Your task to perform on an android device: Open the calendar and show me this week's events? Image 0: 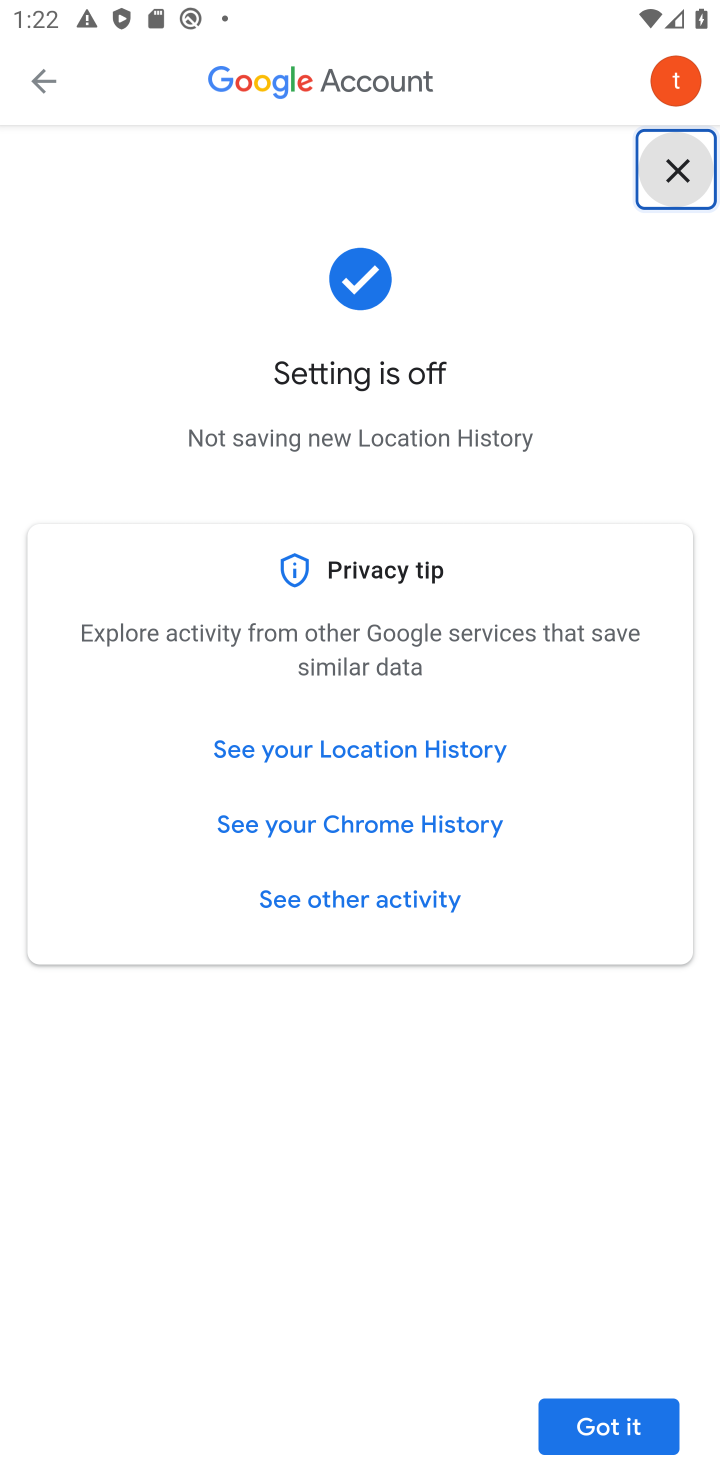
Step 0: press home button
Your task to perform on an android device: Open the calendar and show me this week's events? Image 1: 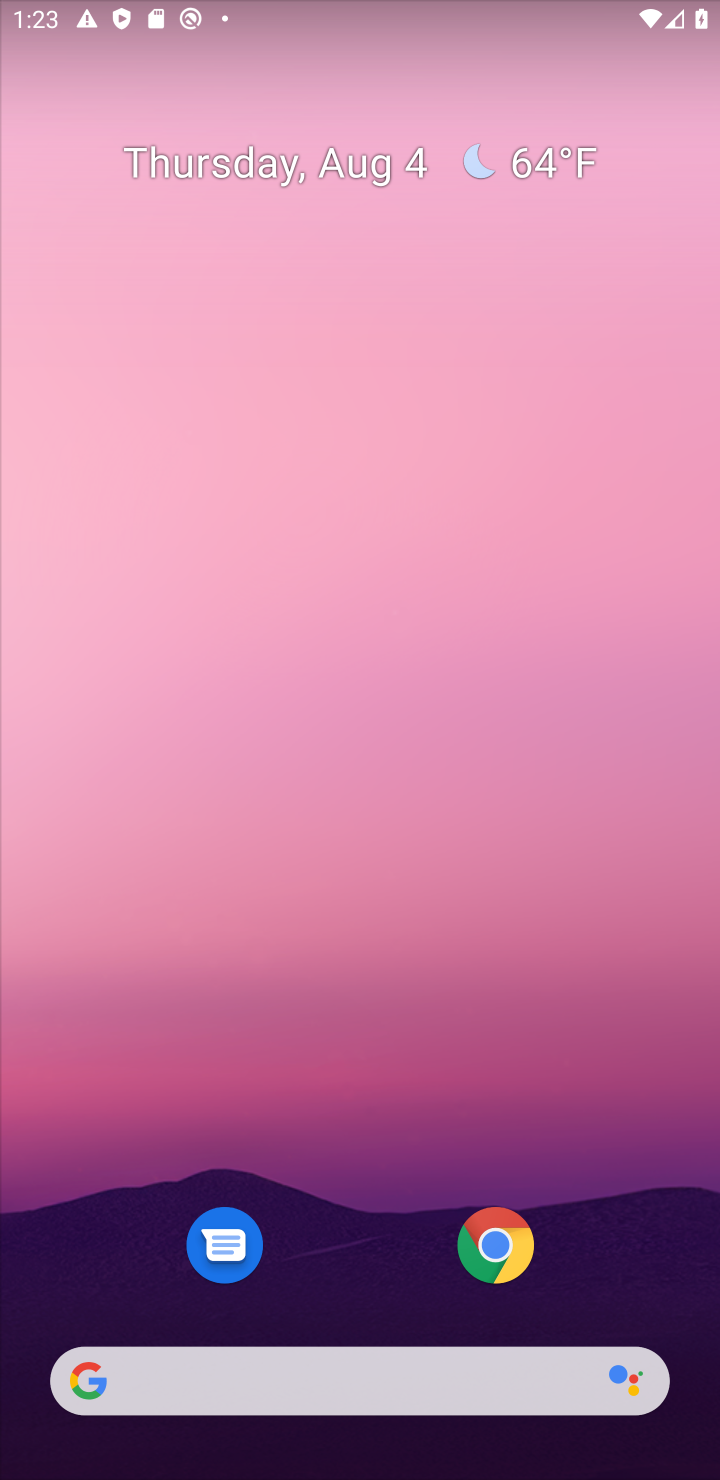
Step 1: drag from (386, 1152) to (450, 138)
Your task to perform on an android device: Open the calendar and show me this week's events? Image 2: 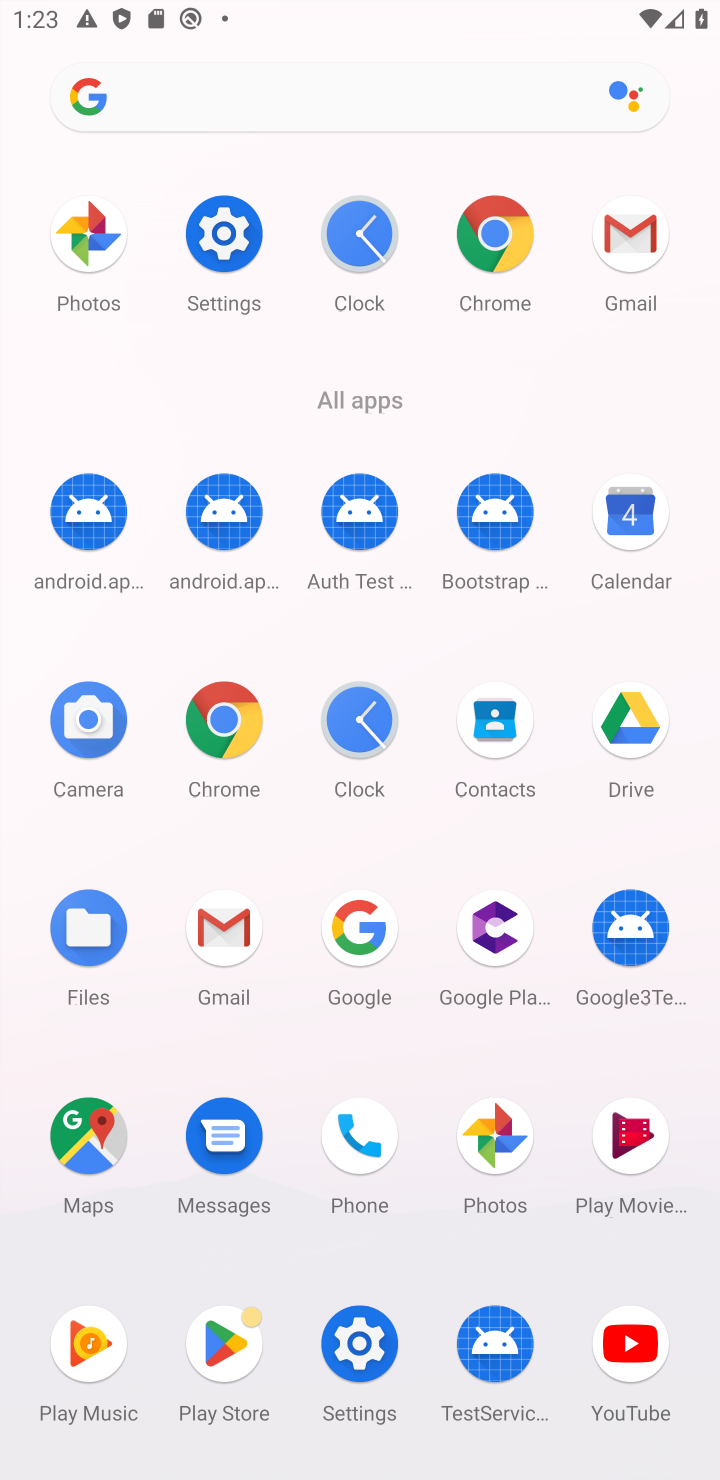
Step 2: click (650, 522)
Your task to perform on an android device: Open the calendar and show me this week's events? Image 3: 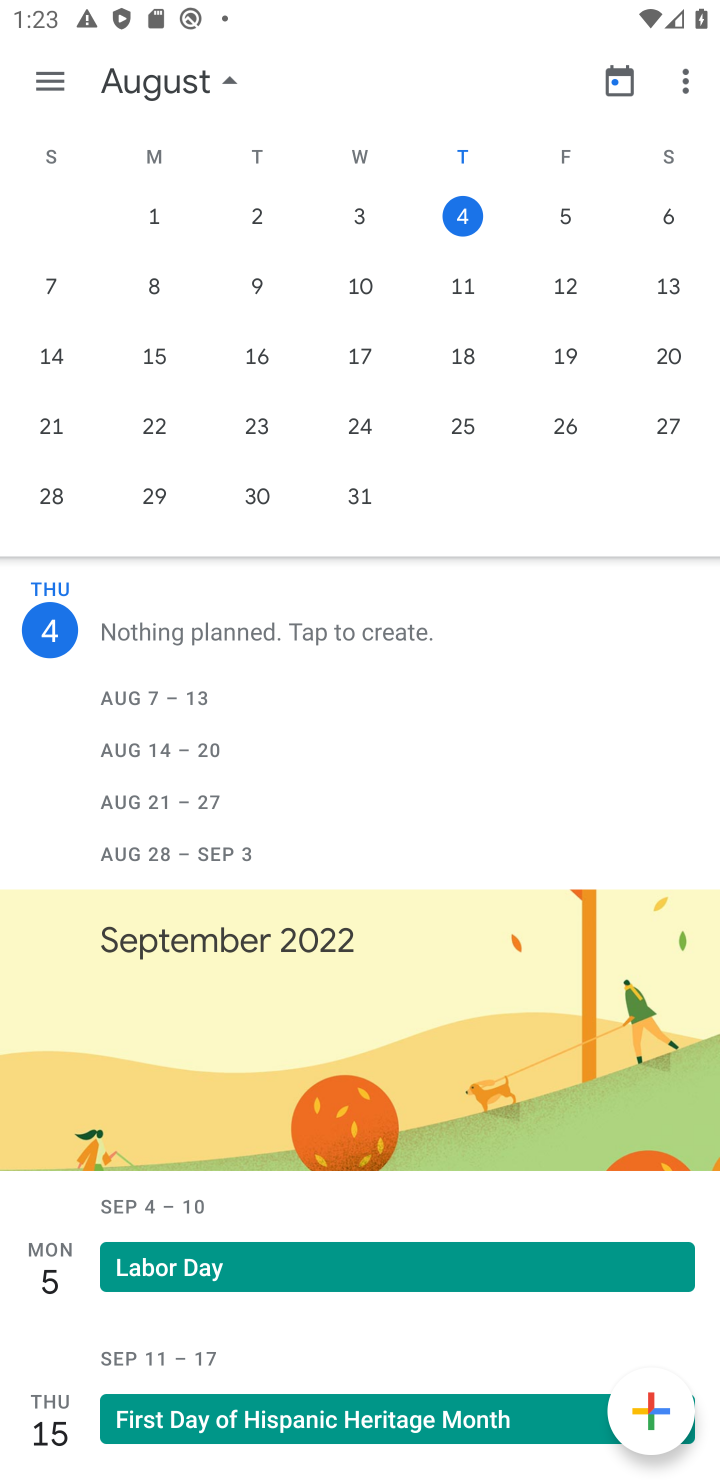
Step 3: click (546, 212)
Your task to perform on an android device: Open the calendar and show me this week's events? Image 4: 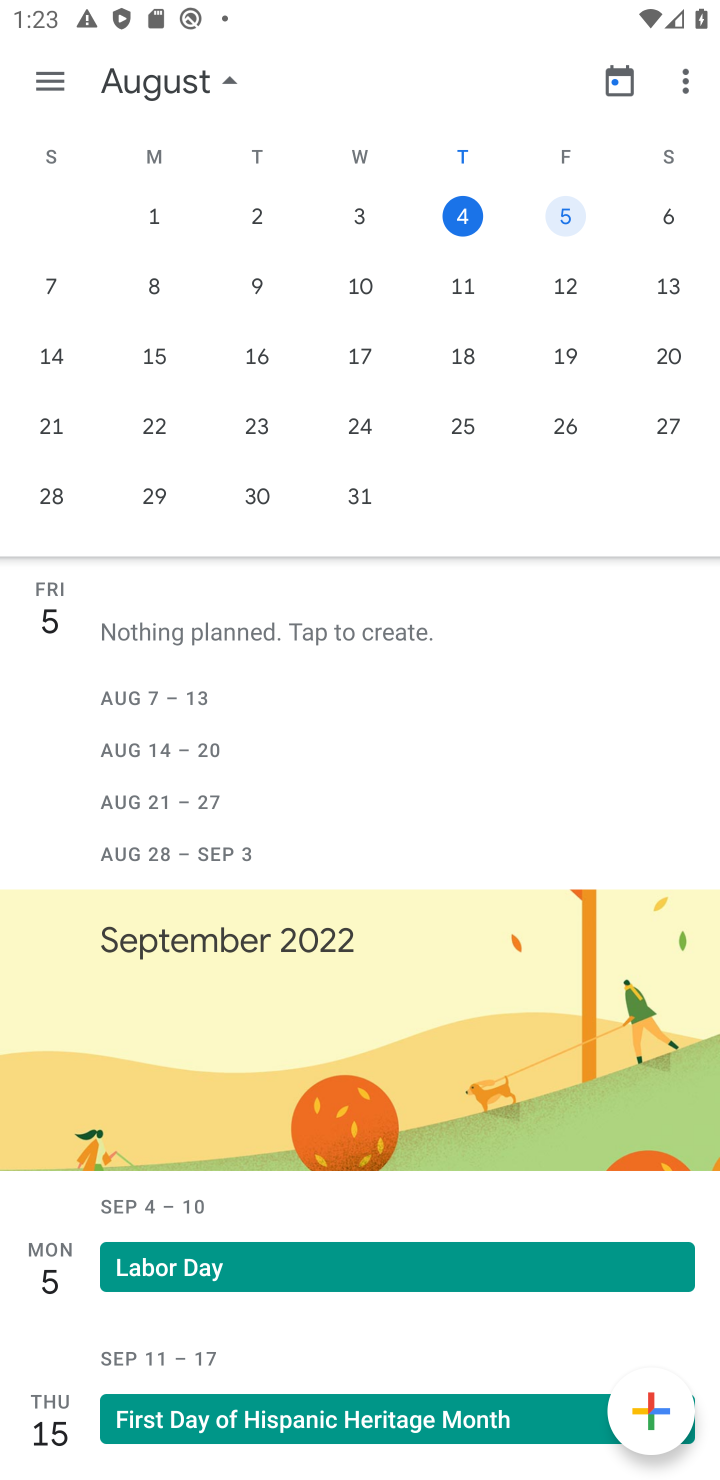
Step 4: click (665, 217)
Your task to perform on an android device: Open the calendar and show me this week's events? Image 5: 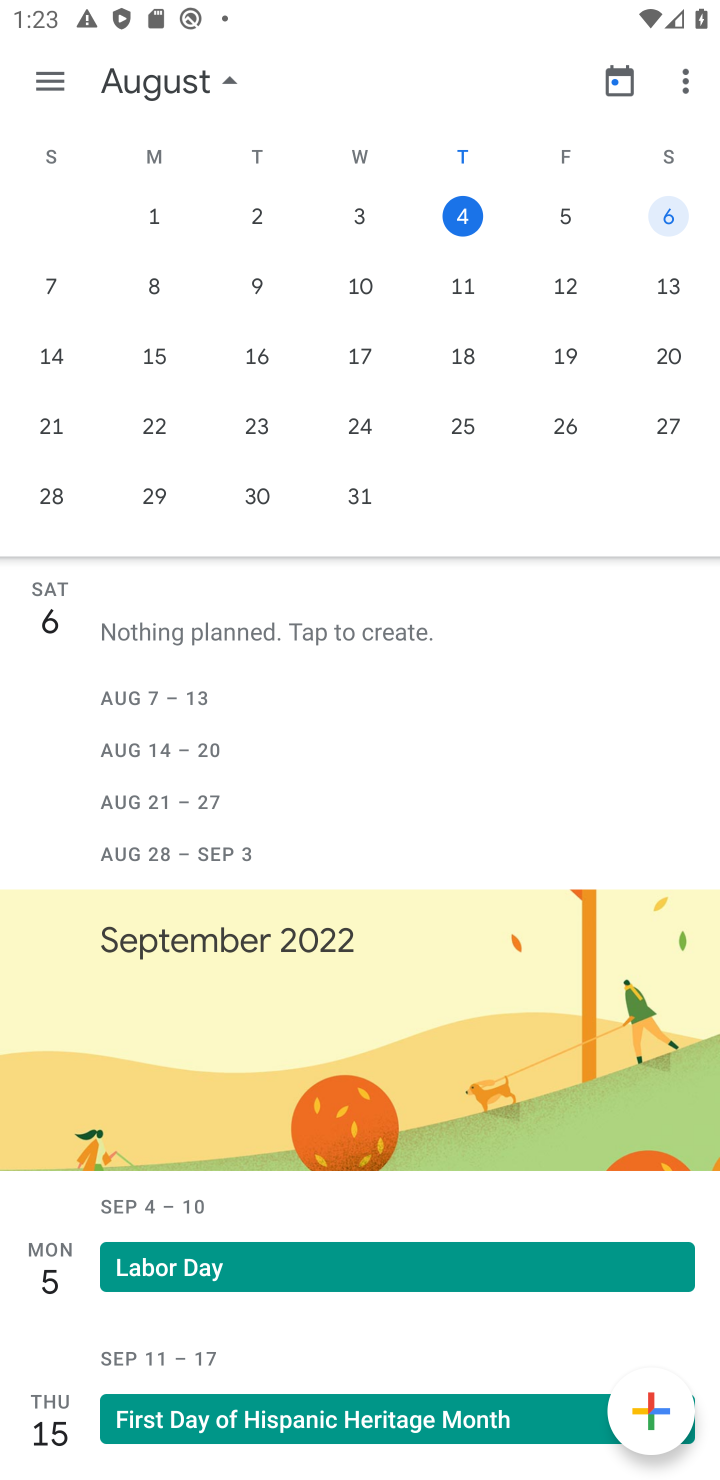
Step 5: task complete